Your task to perform on an android device: open app "Adobe Acrobat Reader: Edit PDF" (install if not already installed) and go to login screen Image 0: 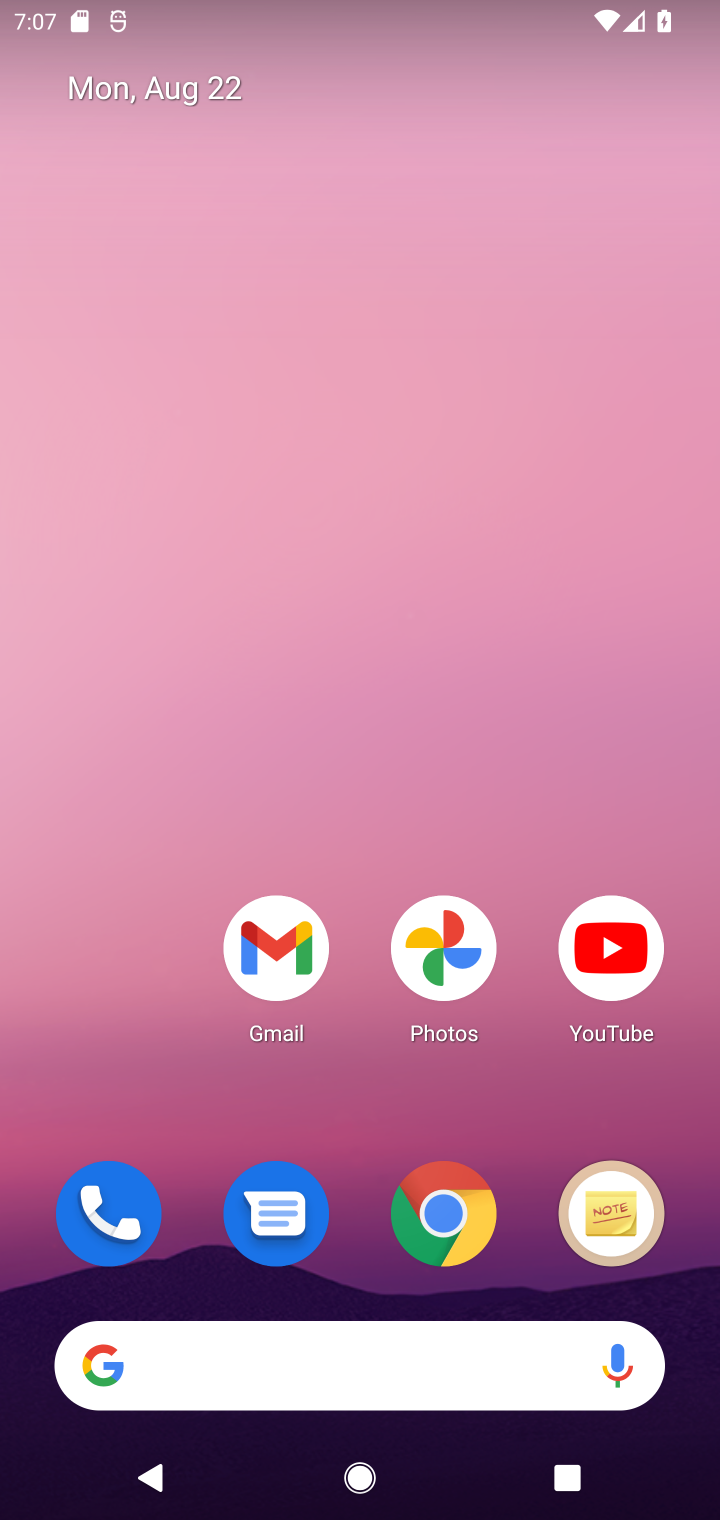
Step 0: drag from (364, 1100) to (410, 0)
Your task to perform on an android device: open app "Adobe Acrobat Reader: Edit PDF" (install if not already installed) and go to login screen Image 1: 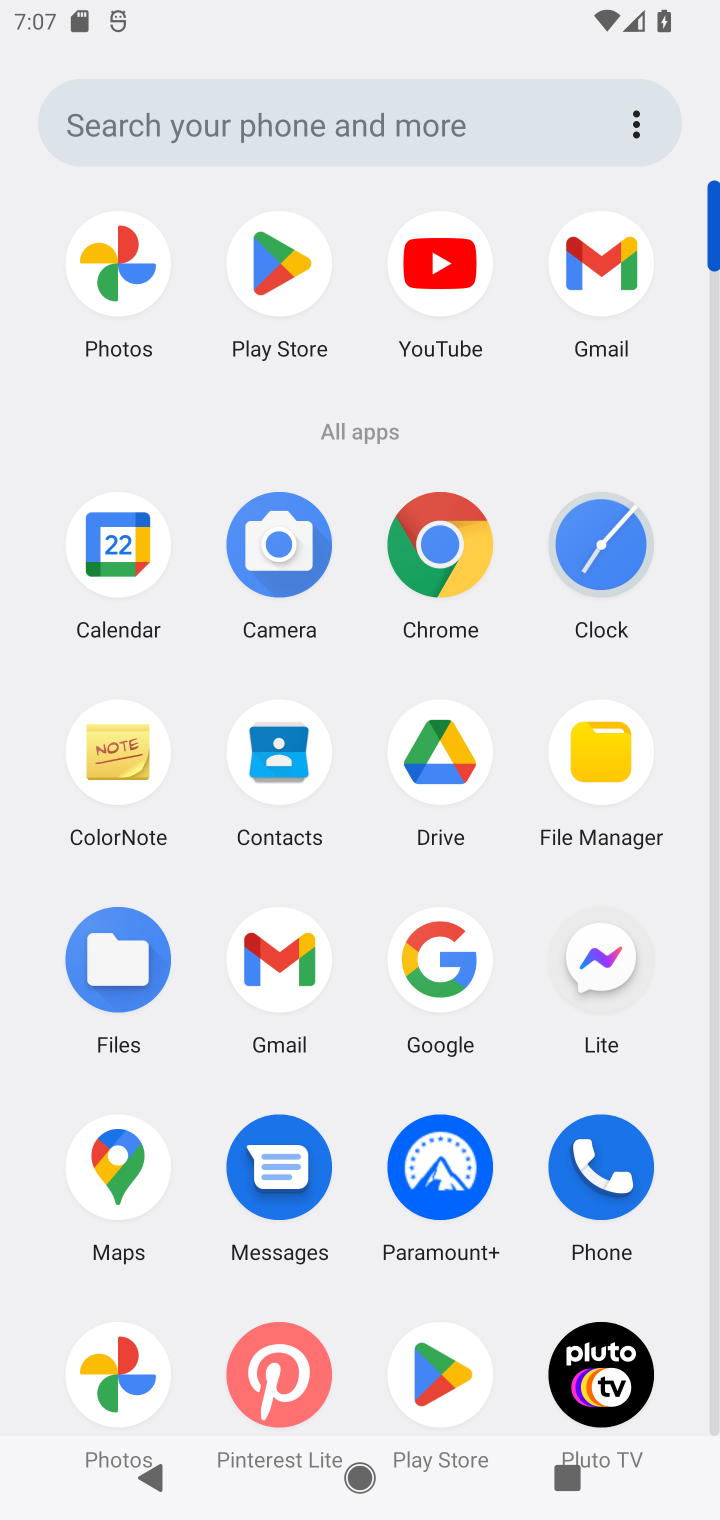
Step 1: click (430, 1360)
Your task to perform on an android device: open app "Adobe Acrobat Reader: Edit PDF" (install if not already installed) and go to login screen Image 2: 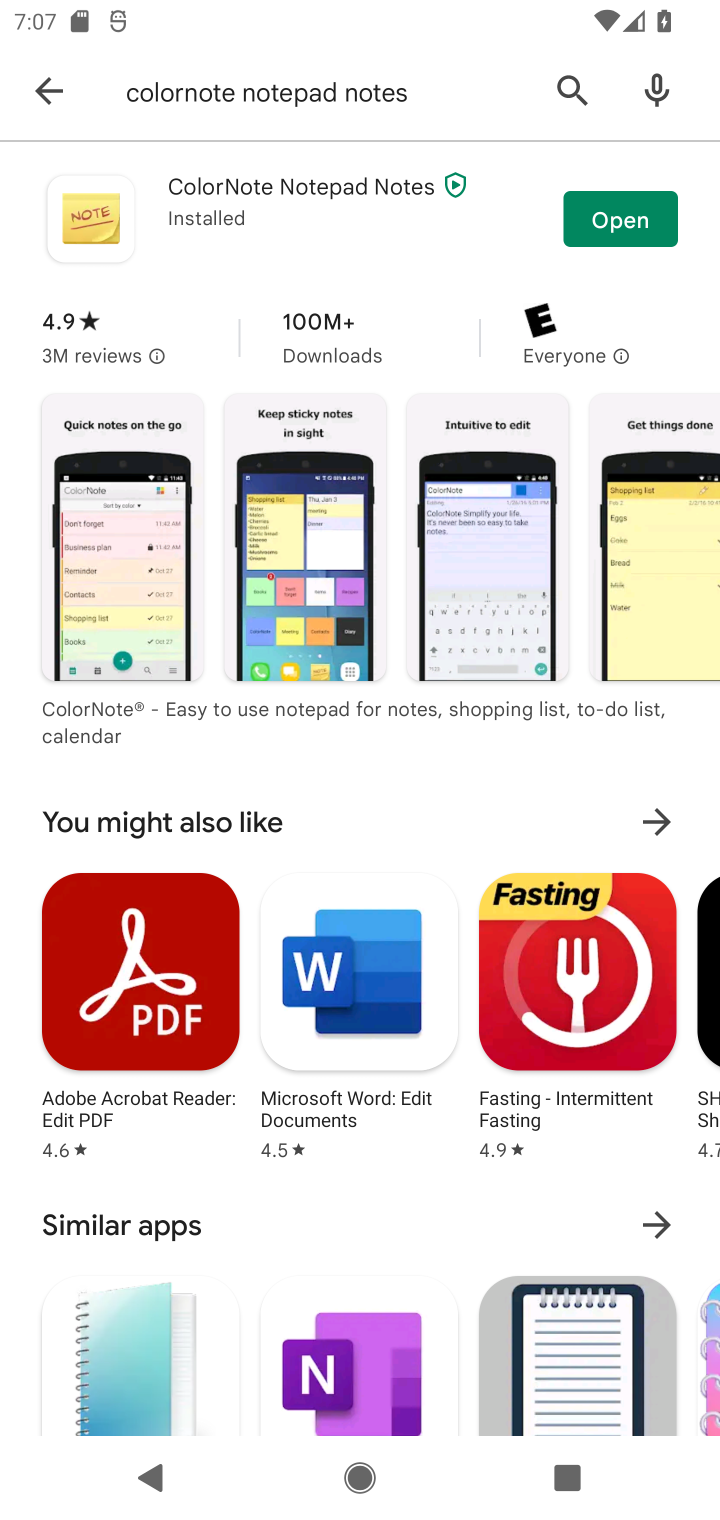
Step 2: click (566, 72)
Your task to perform on an android device: open app "Adobe Acrobat Reader: Edit PDF" (install if not already installed) and go to login screen Image 3: 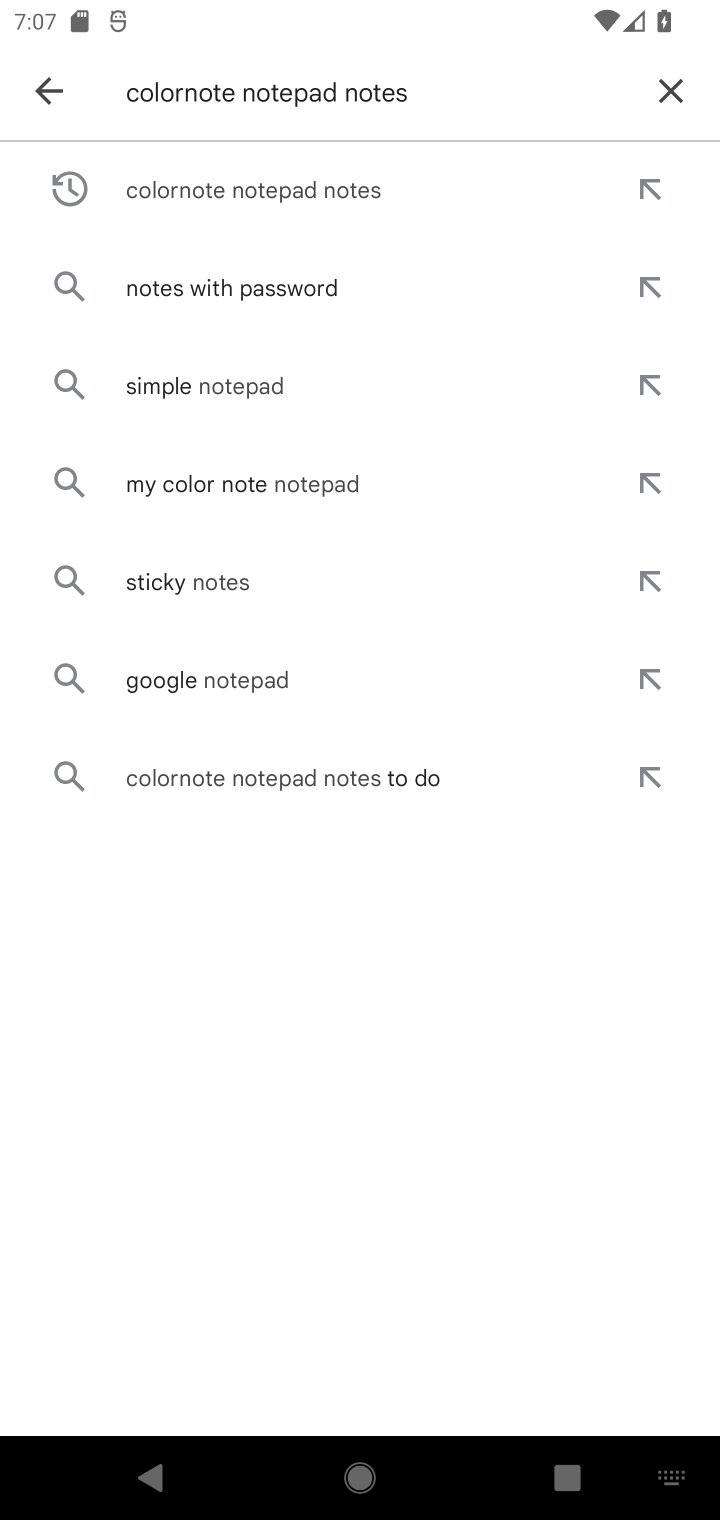
Step 3: click (657, 93)
Your task to perform on an android device: open app "Adobe Acrobat Reader: Edit PDF" (install if not already installed) and go to login screen Image 4: 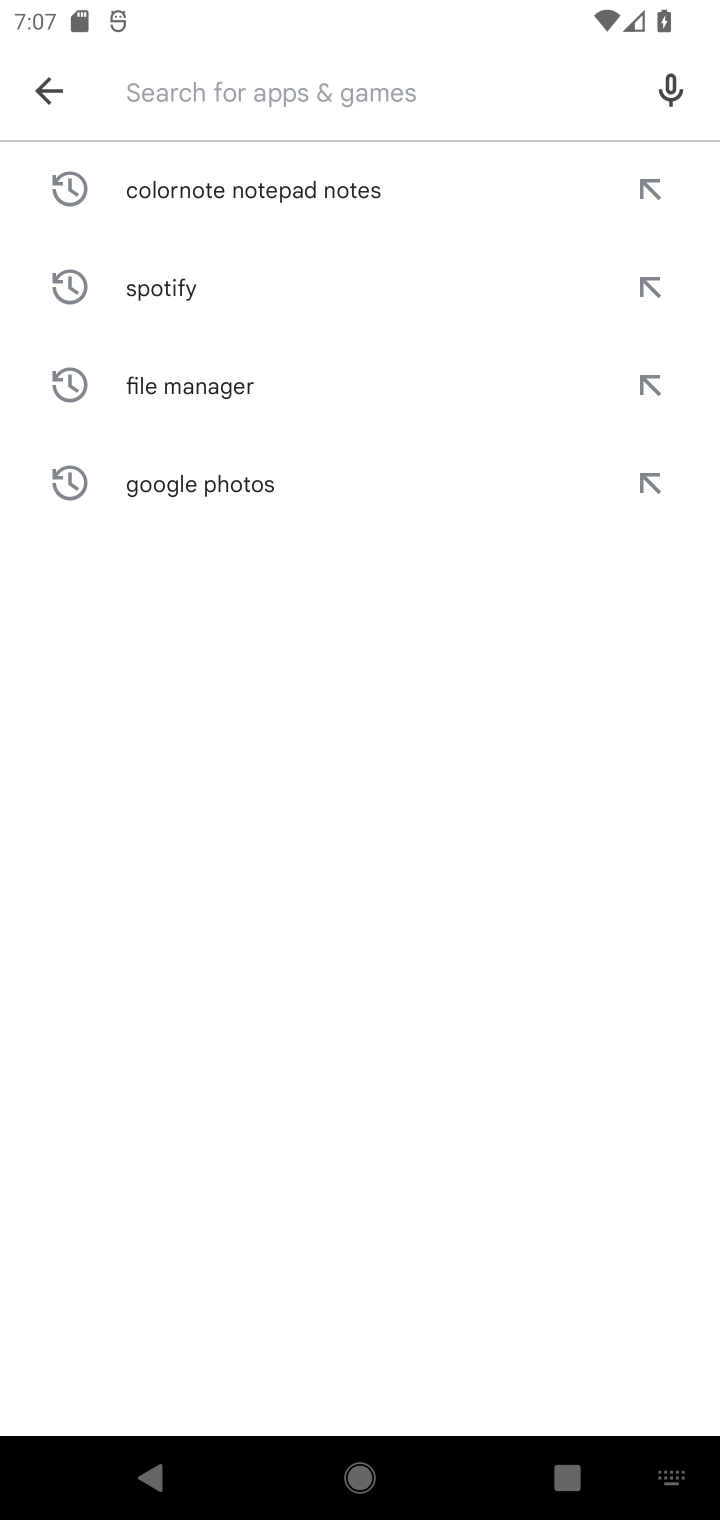
Step 4: type "Adobe Acrobat Reader: Edit PDF"
Your task to perform on an android device: open app "Adobe Acrobat Reader: Edit PDF" (install if not already installed) and go to login screen Image 5: 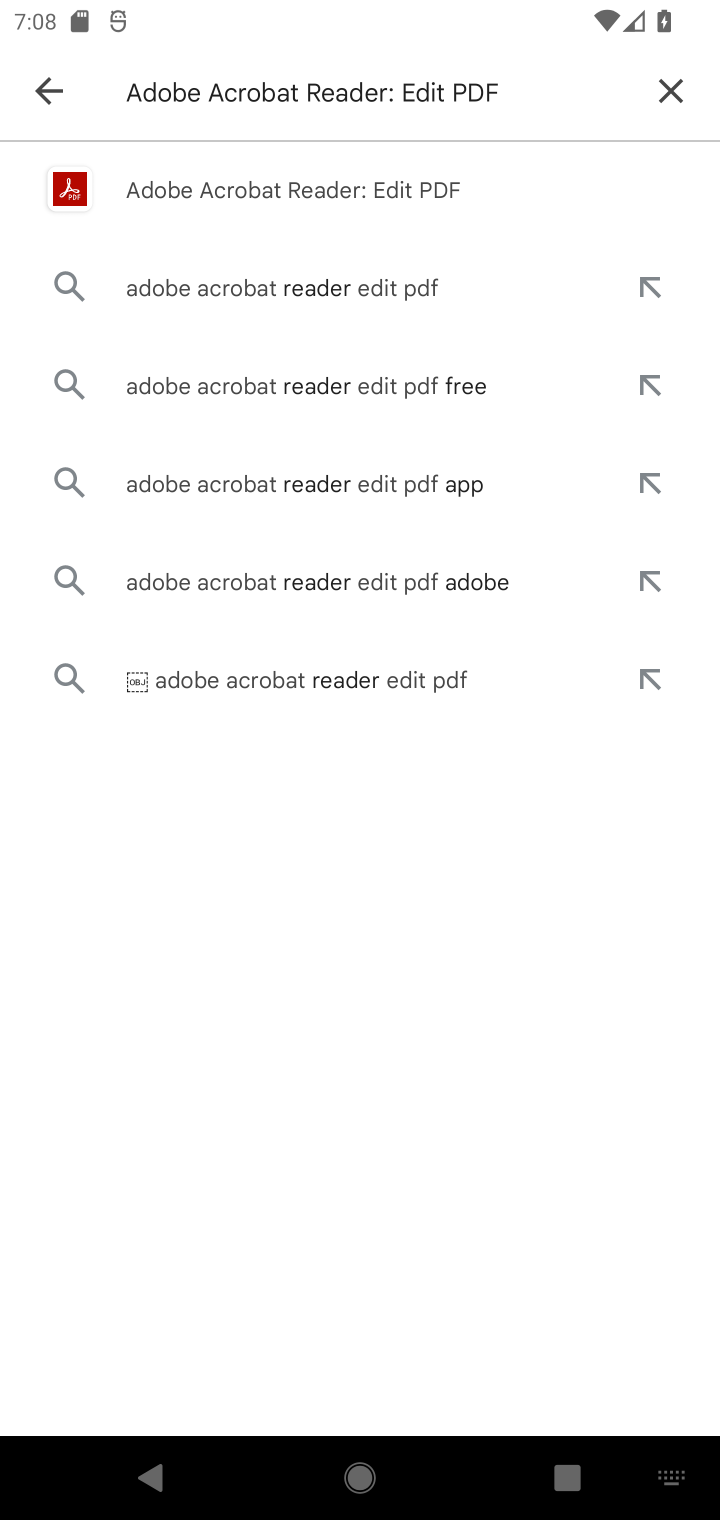
Step 5: click (282, 198)
Your task to perform on an android device: open app "Adobe Acrobat Reader: Edit PDF" (install if not already installed) and go to login screen Image 6: 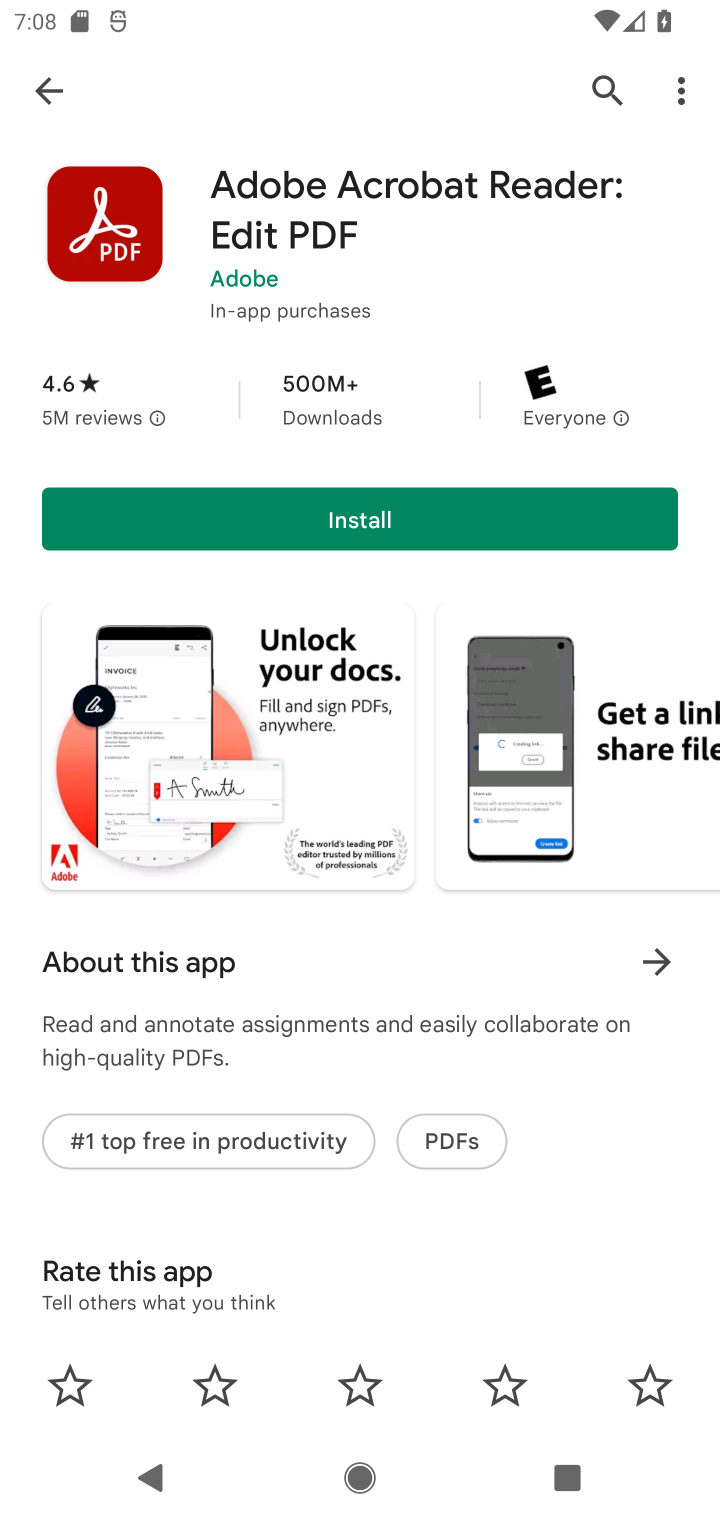
Step 6: click (355, 522)
Your task to perform on an android device: open app "Adobe Acrobat Reader: Edit PDF" (install if not already installed) and go to login screen Image 7: 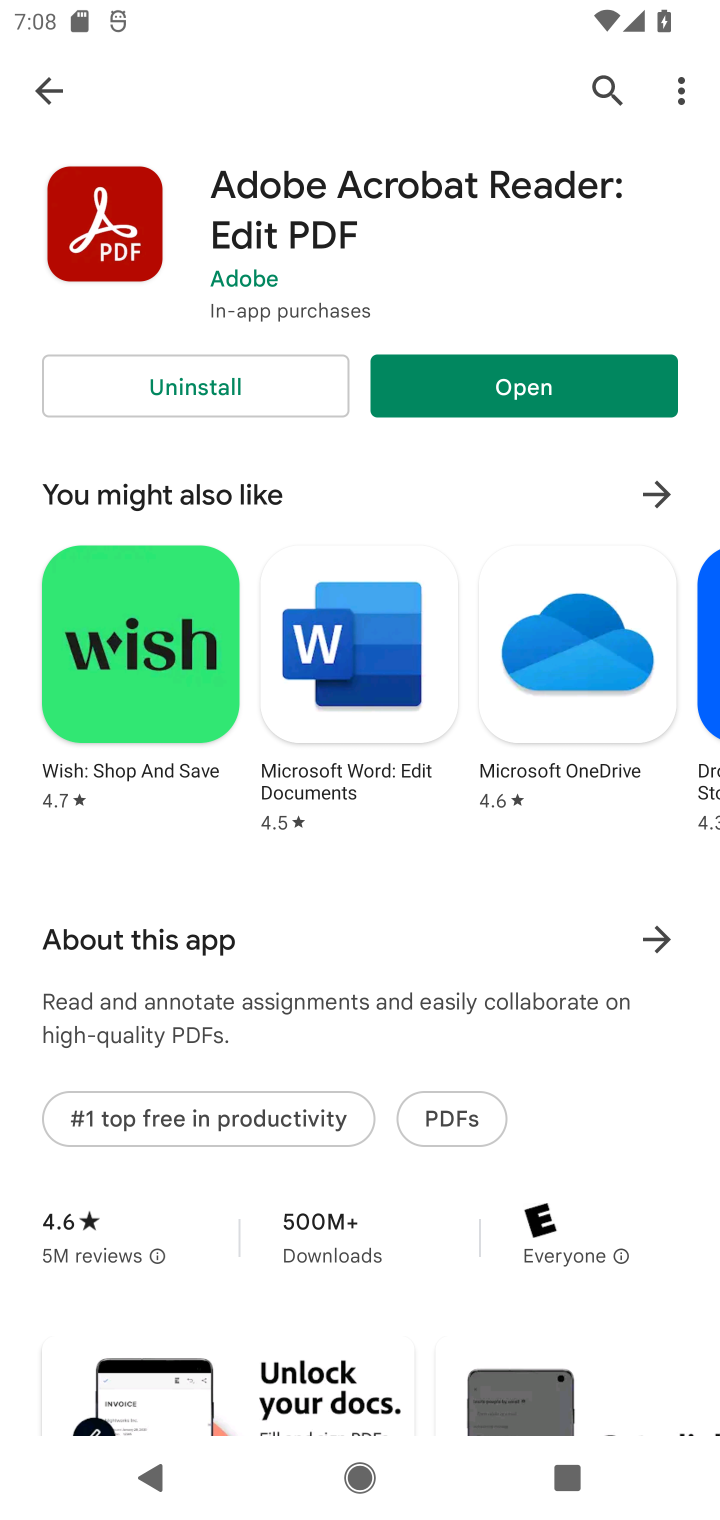
Step 7: click (536, 379)
Your task to perform on an android device: open app "Adobe Acrobat Reader: Edit PDF" (install if not already installed) and go to login screen Image 8: 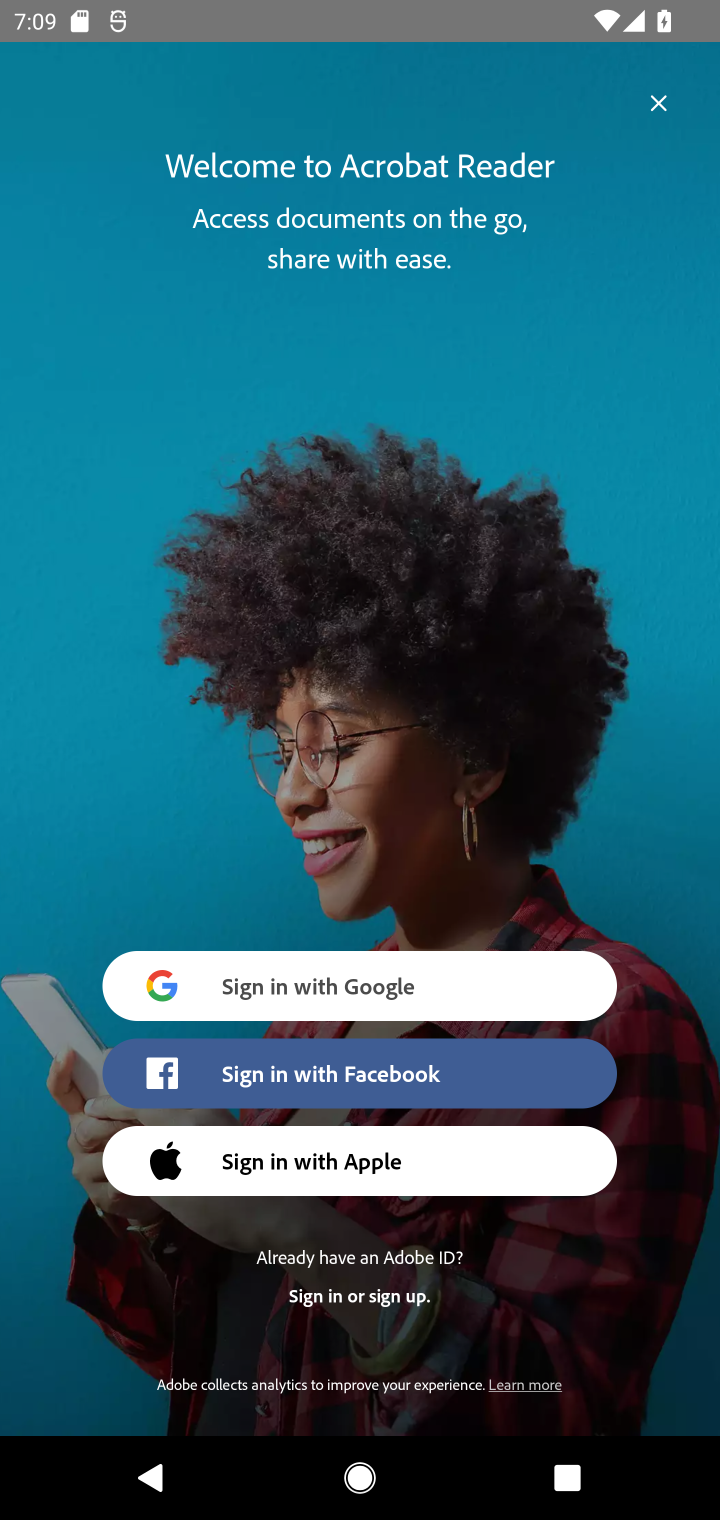
Step 8: click (345, 976)
Your task to perform on an android device: open app "Adobe Acrobat Reader: Edit PDF" (install if not already installed) and go to login screen Image 9: 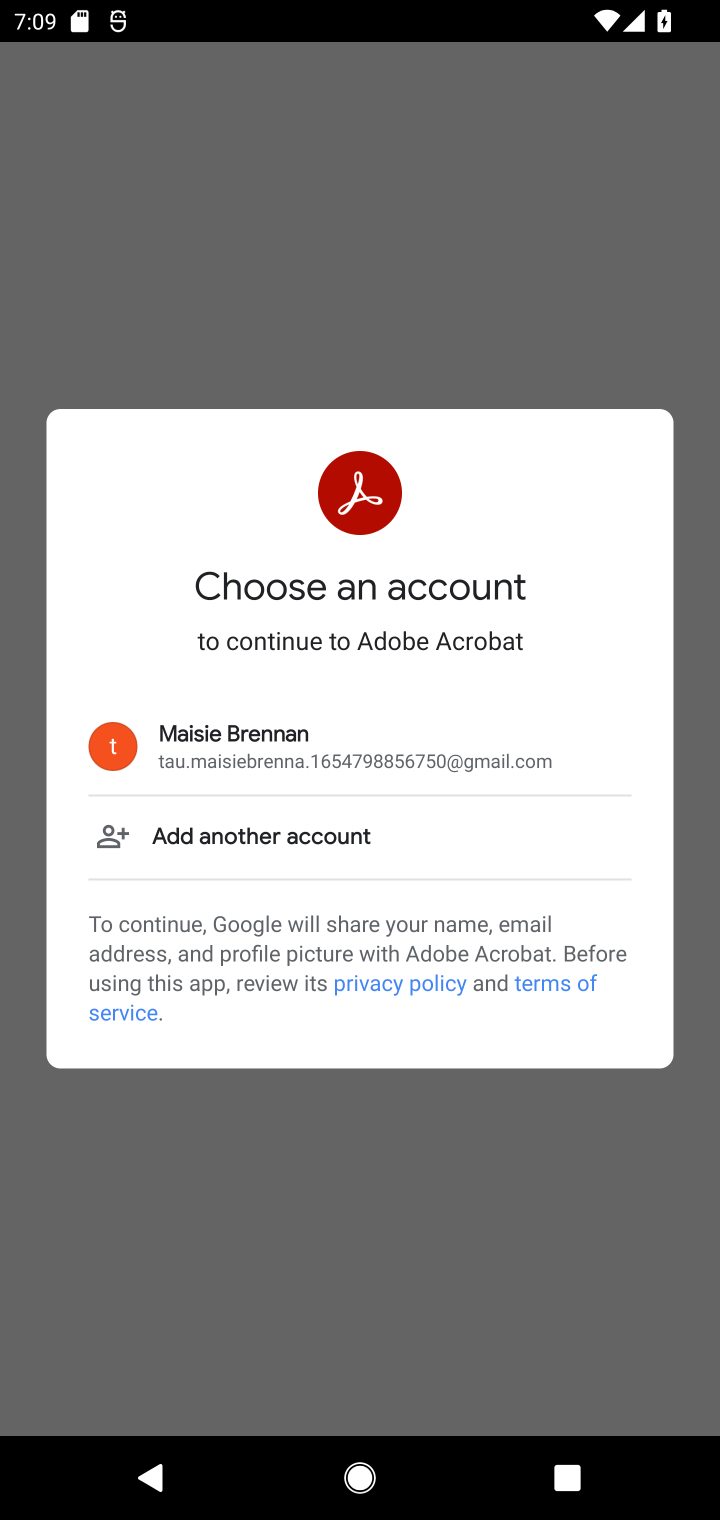
Step 9: click (321, 737)
Your task to perform on an android device: open app "Adobe Acrobat Reader: Edit PDF" (install if not already installed) and go to login screen Image 10: 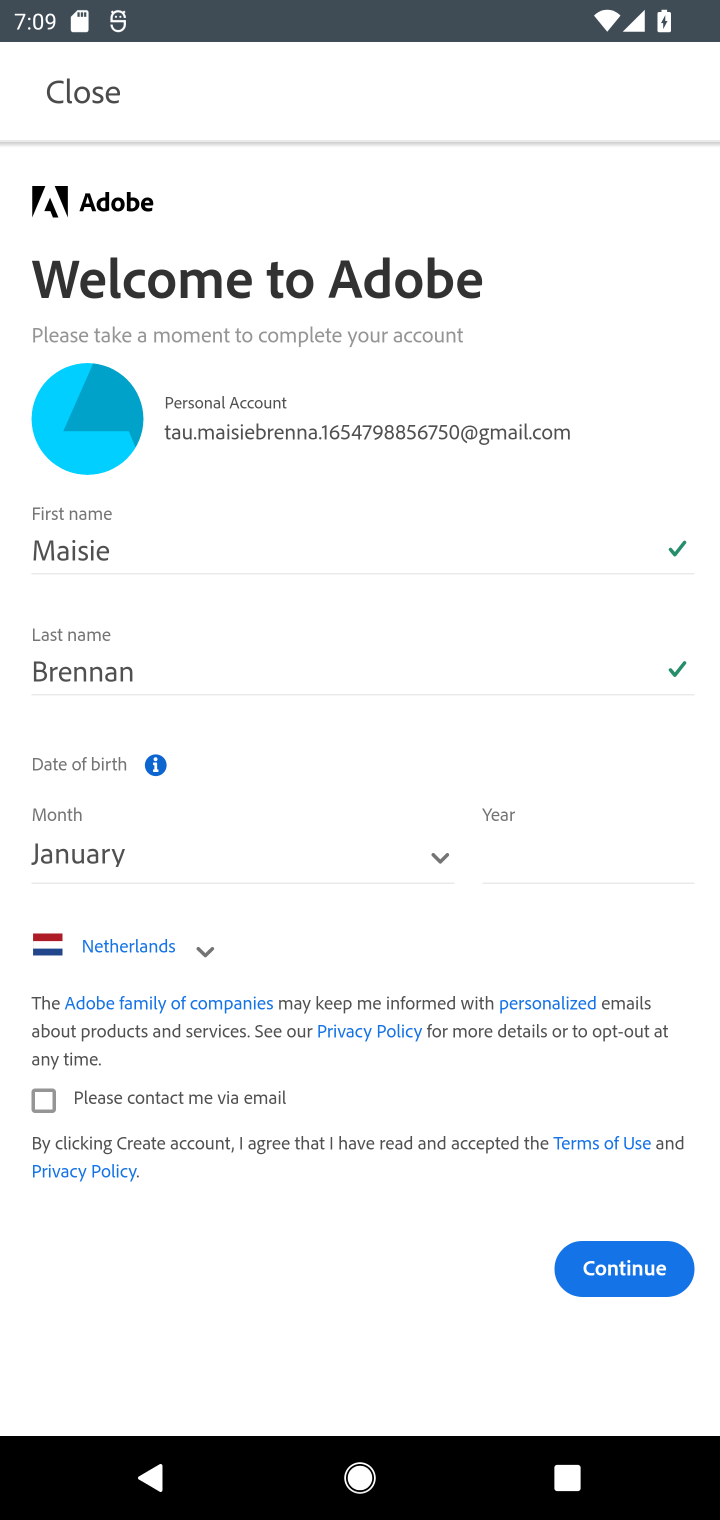
Step 10: click (441, 857)
Your task to perform on an android device: open app "Adobe Acrobat Reader: Edit PDF" (install if not already installed) and go to login screen Image 11: 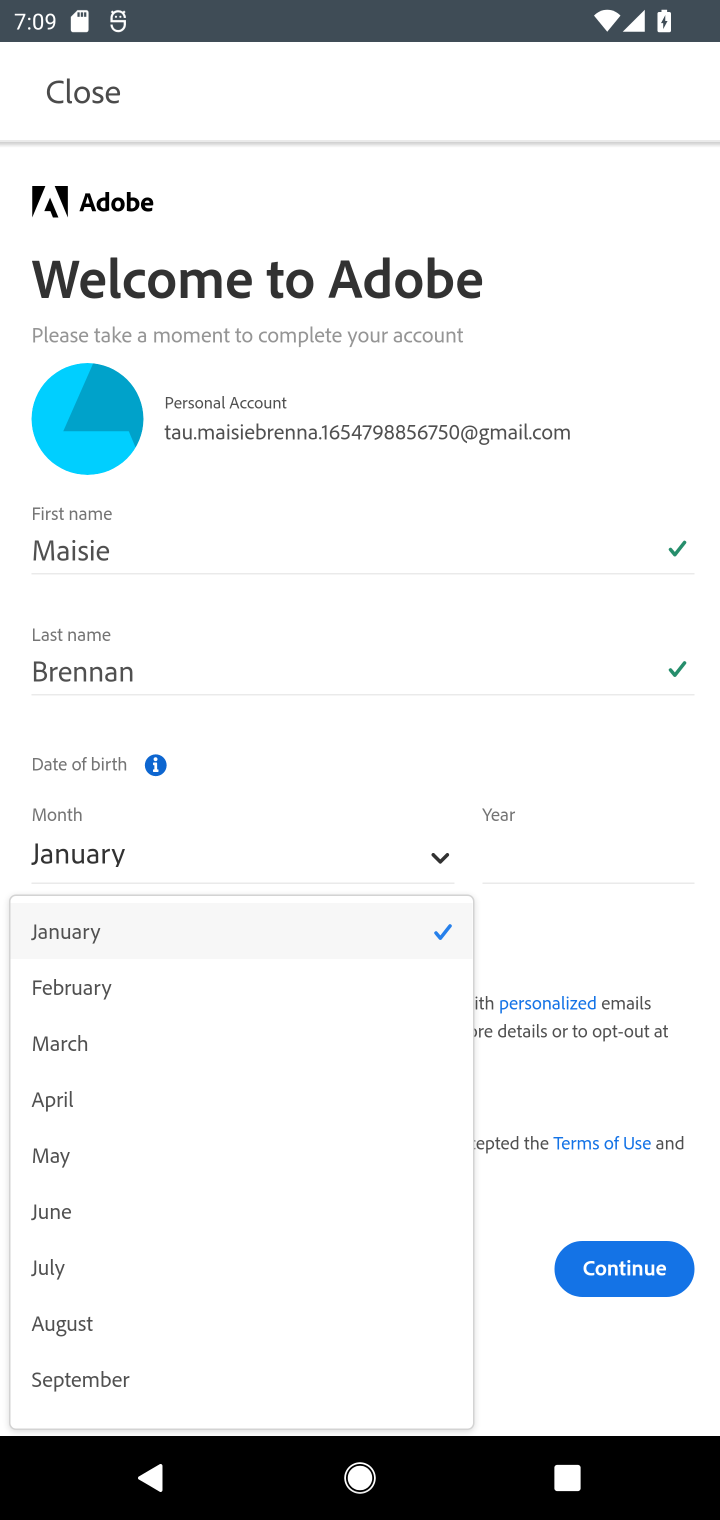
Step 11: click (319, 927)
Your task to perform on an android device: open app "Adobe Acrobat Reader: Edit PDF" (install if not already installed) and go to login screen Image 12: 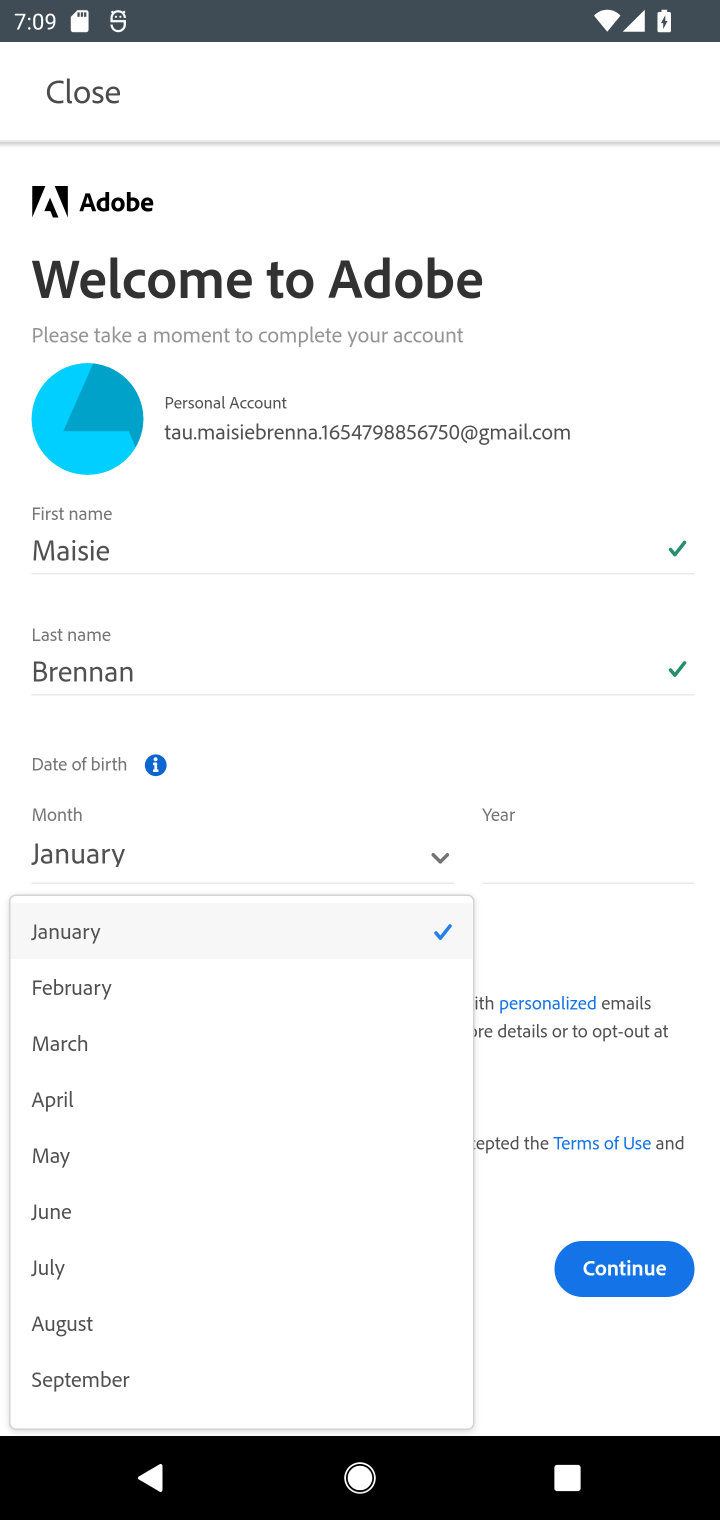
Step 12: click (567, 839)
Your task to perform on an android device: open app "Adobe Acrobat Reader: Edit PDF" (install if not already installed) and go to login screen Image 13: 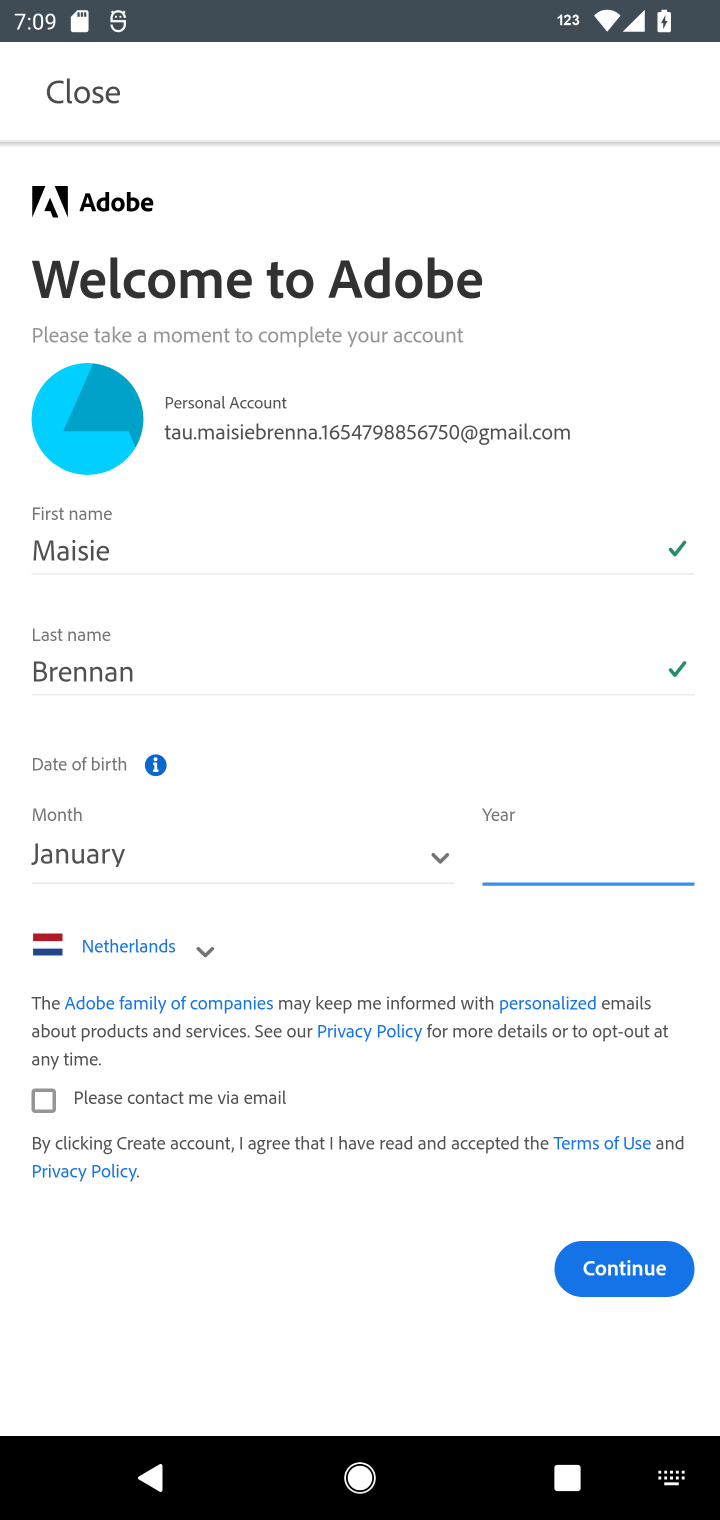
Step 13: type "1993"
Your task to perform on an android device: open app "Adobe Acrobat Reader: Edit PDF" (install if not already installed) and go to login screen Image 14: 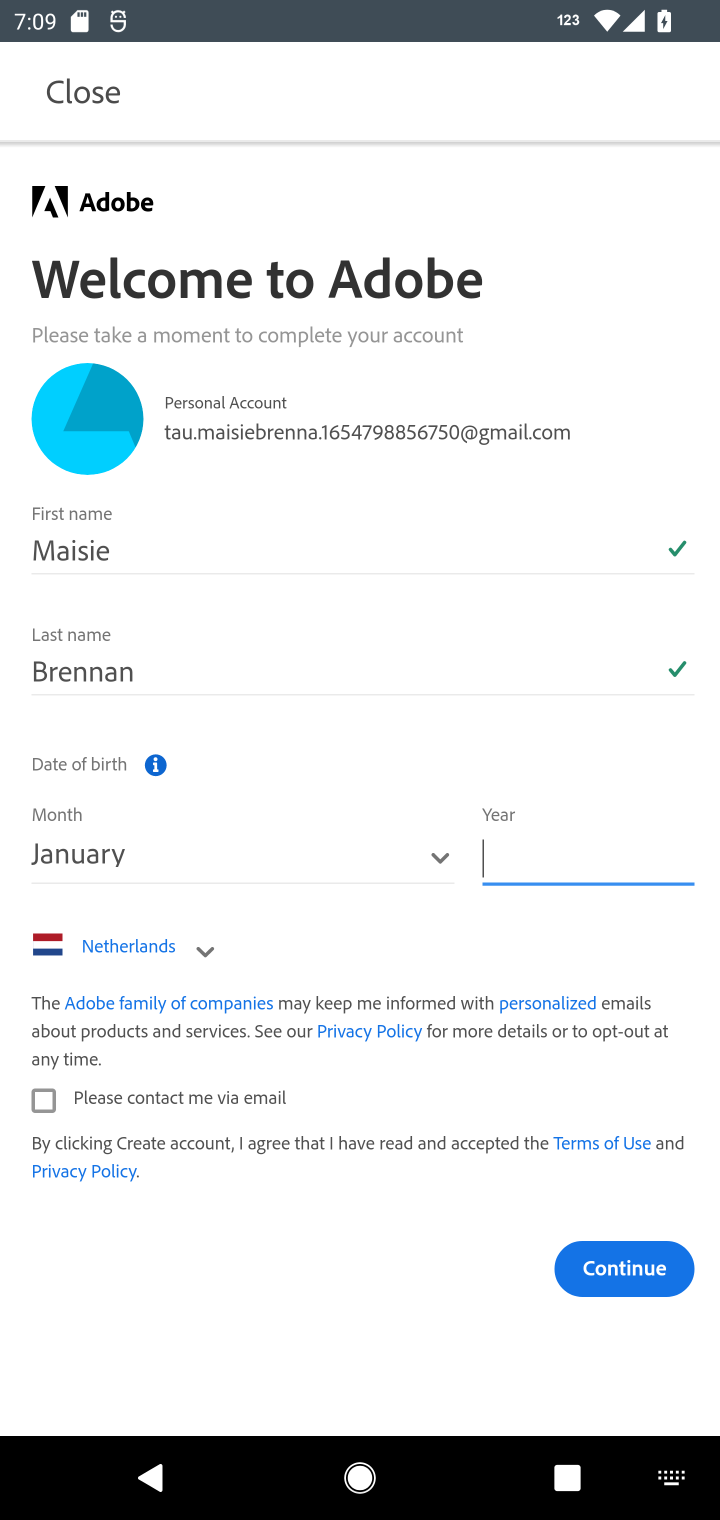
Step 14: type ""
Your task to perform on an android device: open app "Adobe Acrobat Reader: Edit PDF" (install if not already installed) and go to login screen Image 15: 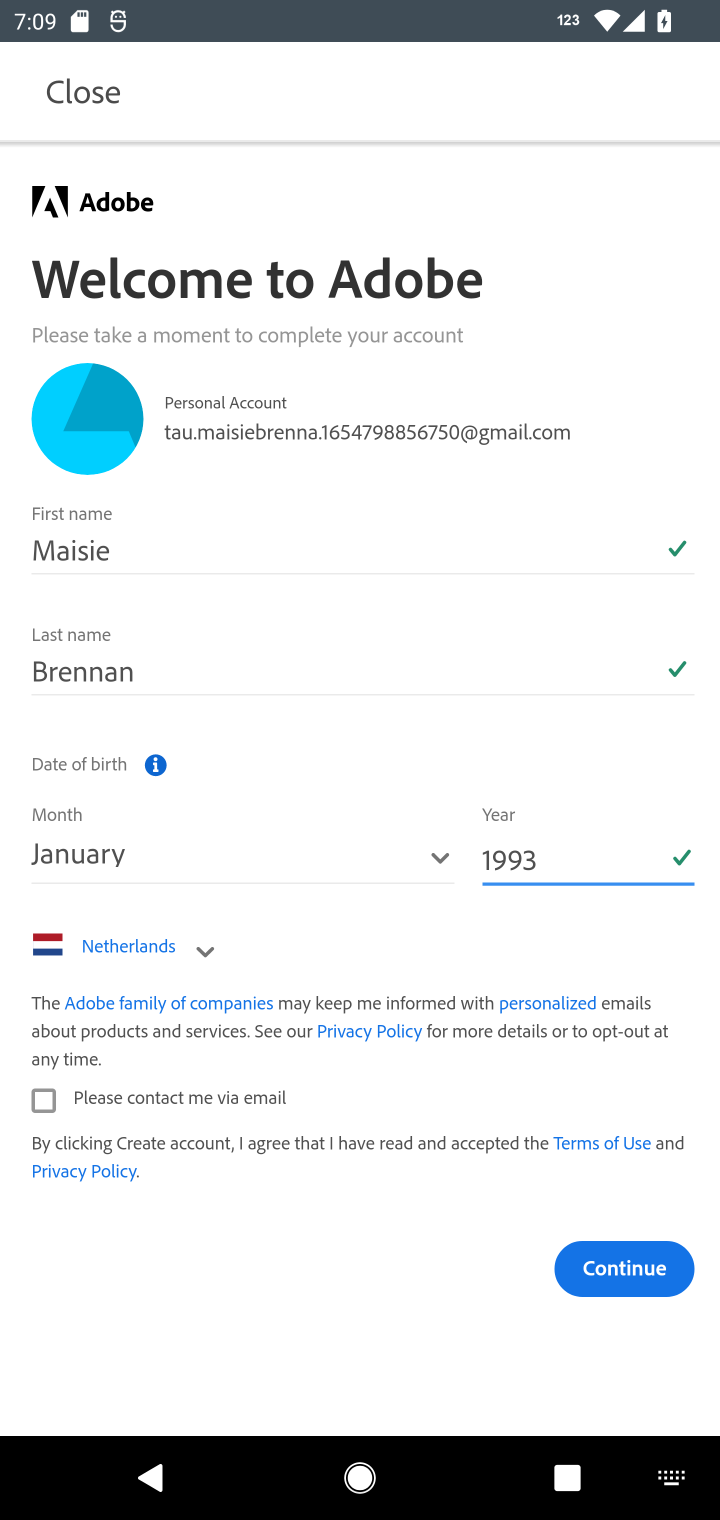
Step 15: click (626, 1266)
Your task to perform on an android device: open app "Adobe Acrobat Reader: Edit PDF" (install if not already installed) and go to login screen Image 16: 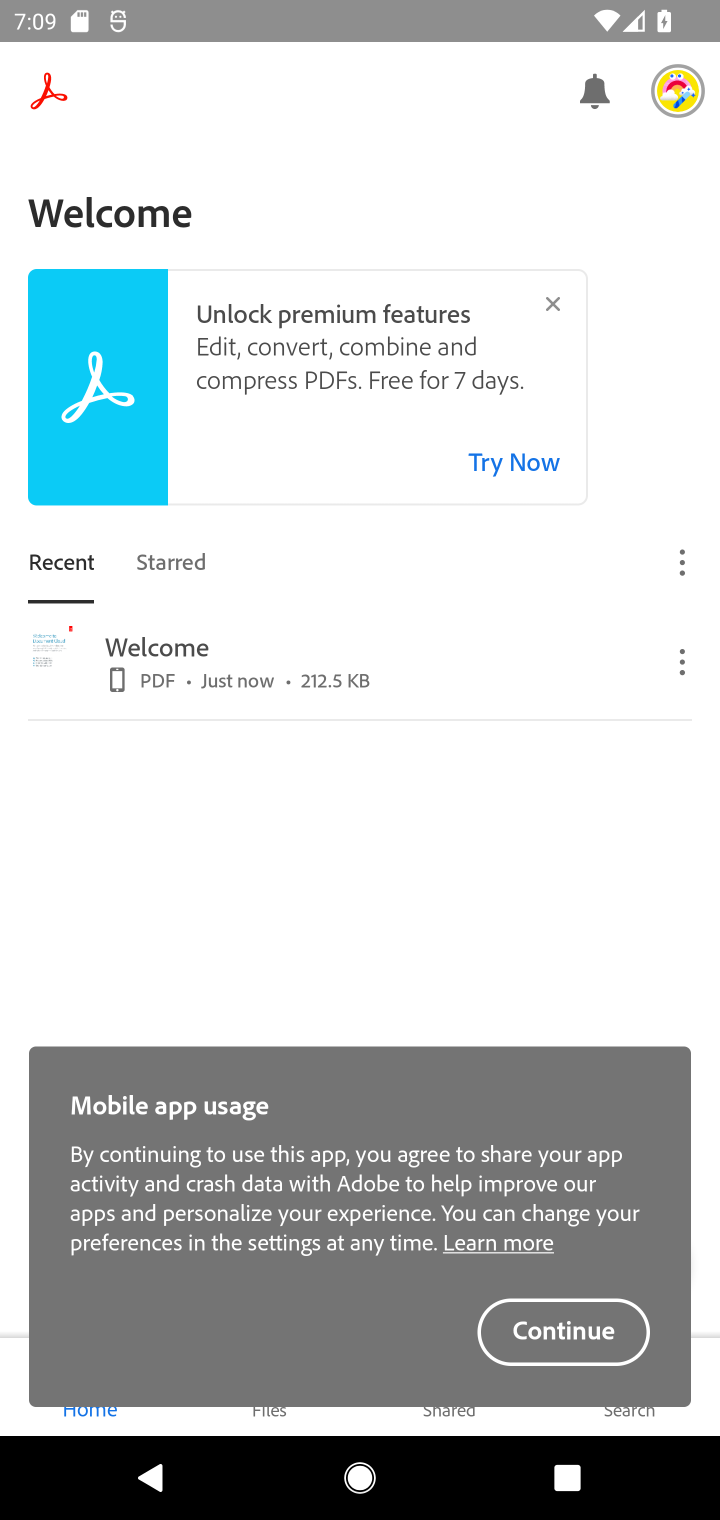
Step 16: task complete